Your task to perform on an android device: Go to sound settings Image 0: 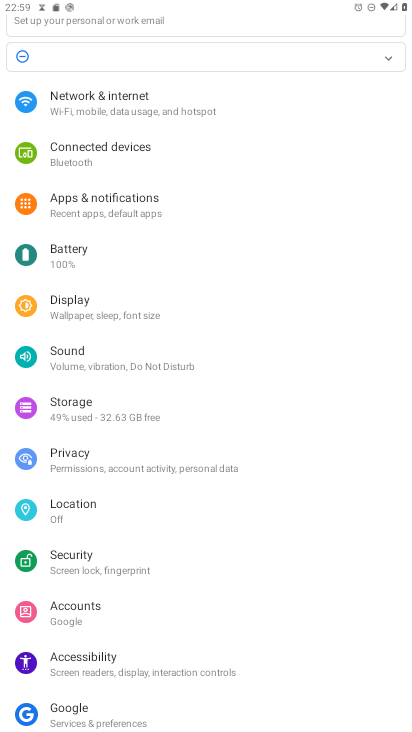
Step 0: click (91, 360)
Your task to perform on an android device: Go to sound settings Image 1: 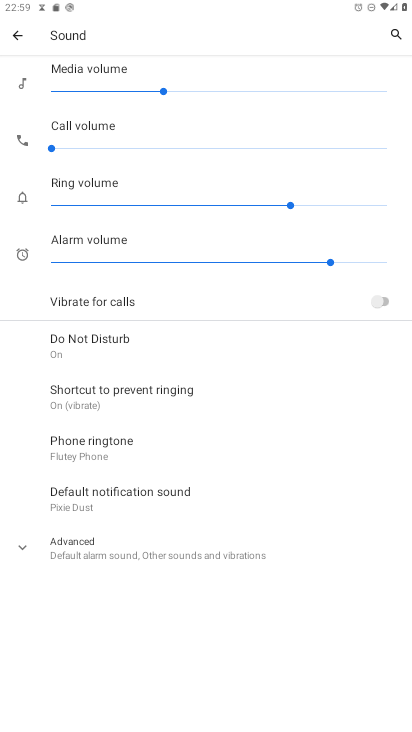
Step 1: task complete